Your task to perform on an android device: Open the calendar and show me this week's events Image 0: 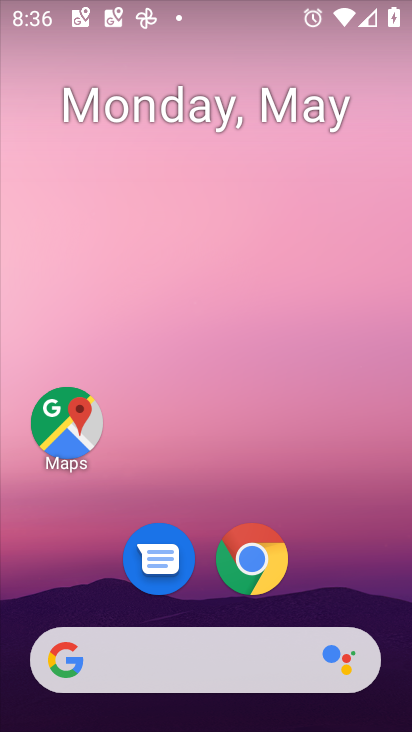
Step 0: drag from (376, 649) to (285, 80)
Your task to perform on an android device: Open the calendar and show me this week's events Image 1: 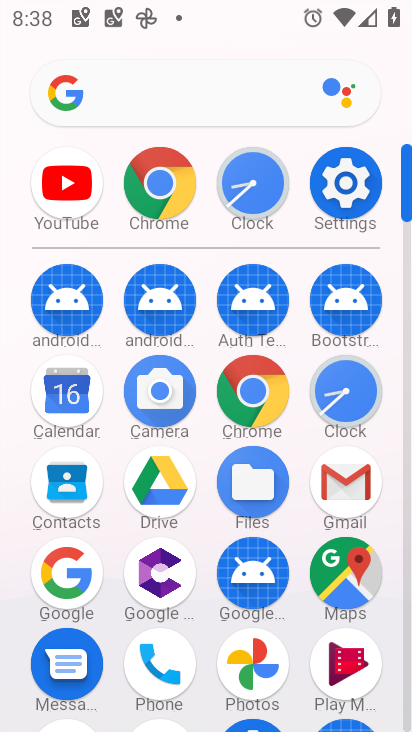
Step 1: click (61, 400)
Your task to perform on an android device: Open the calendar and show me this week's events Image 2: 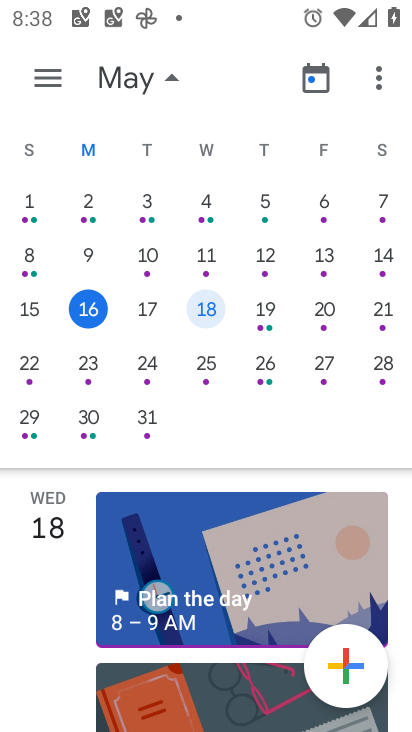
Step 2: click (46, 75)
Your task to perform on an android device: Open the calendar and show me this week's events Image 3: 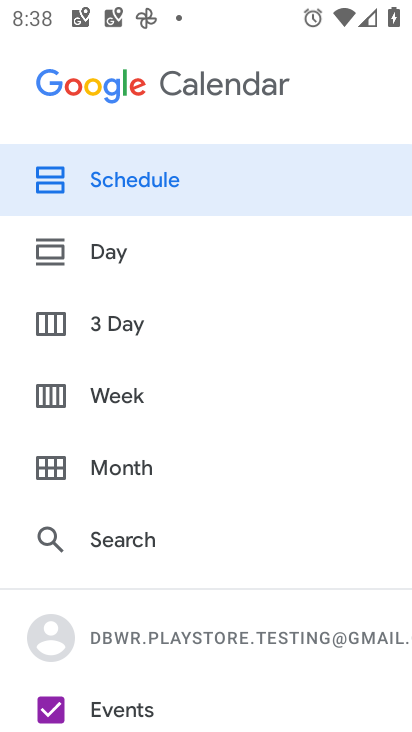
Step 3: click (219, 689)
Your task to perform on an android device: Open the calendar and show me this week's events Image 4: 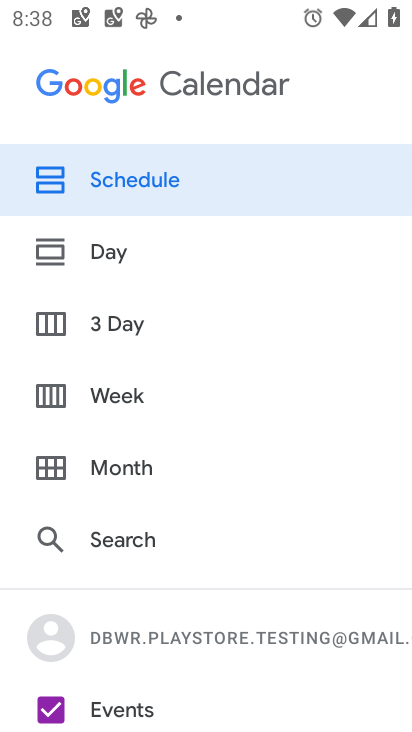
Step 4: click (157, 719)
Your task to perform on an android device: Open the calendar and show me this week's events Image 5: 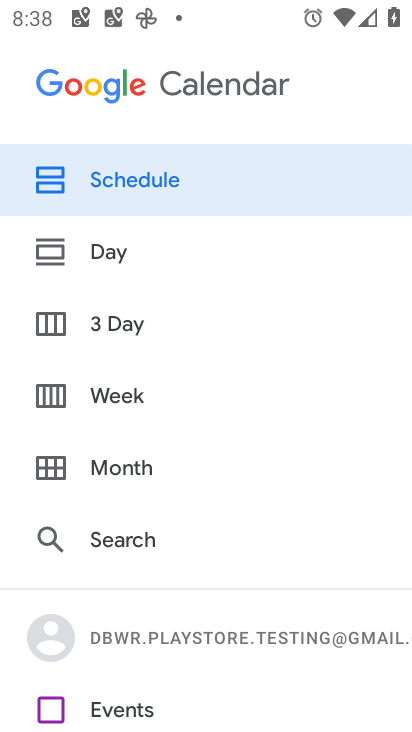
Step 5: click (157, 719)
Your task to perform on an android device: Open the calendar and show me this week's events Image 6: 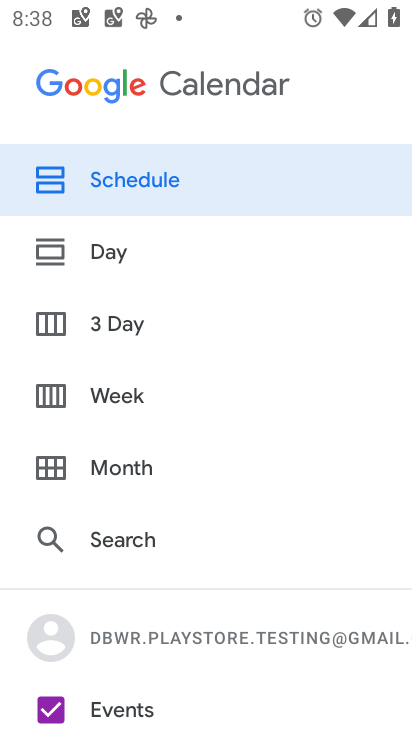
Step 6: task complete